Your task to perform on an android device: check android version Image 0: 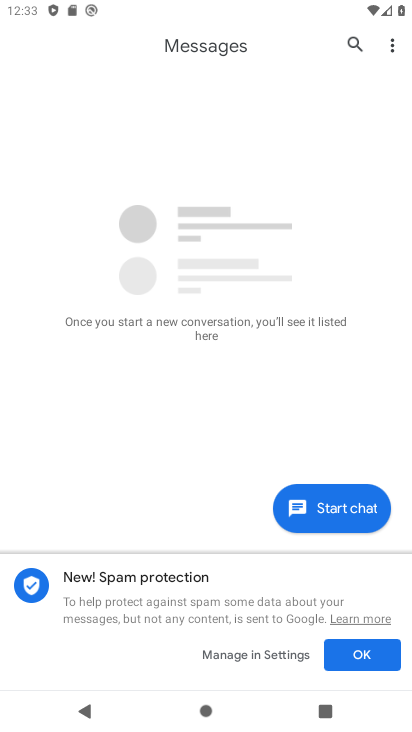
Step 0: press back button
Your task to perform on an android device: check android version Image 1: 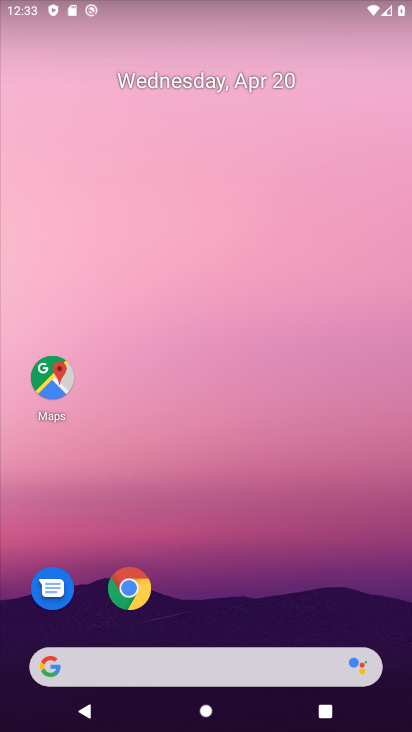
Step 1: drag from (208, 610) to (281, 299)
Your task to perform on an android device: check android version Image 2: 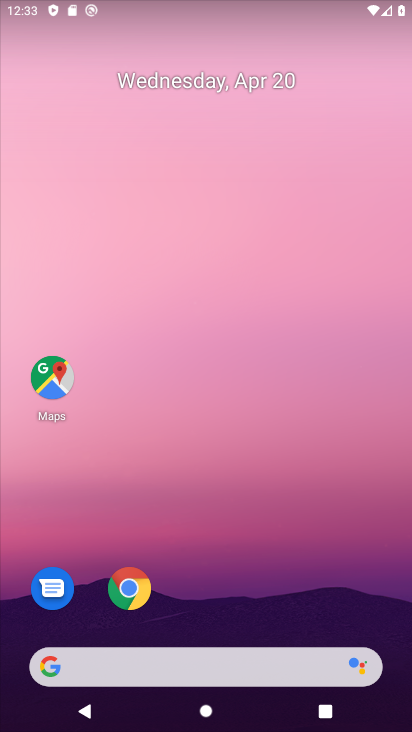
Step 2: drag from (291, 640) to (343, 139)
Your task to perform on an android device: check android version Image 3: 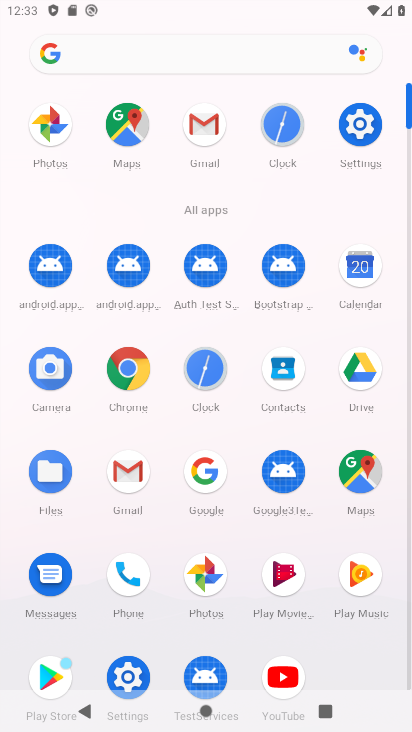
Step 3: click (363, 136)
Your task to perform on an android device: check android version Image 4: 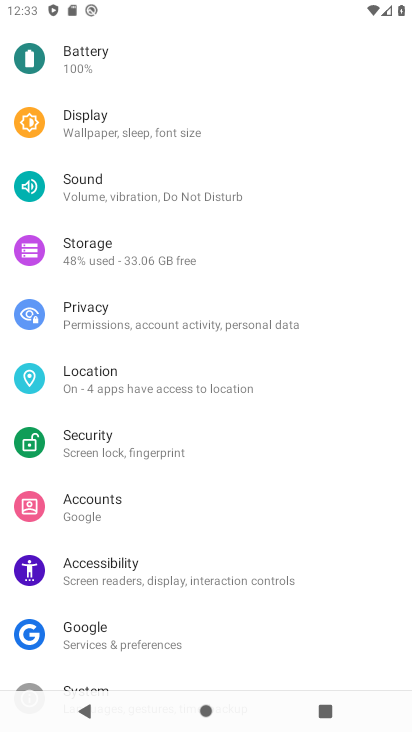
Step 4: drag from (155, 667) to (199, 357)
Your task to perform on an android device: check android version Image 5: 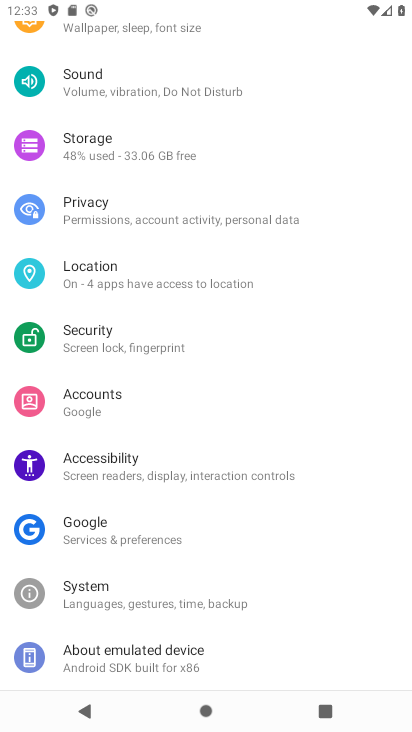
Step 5: click (148, 668)
Your task to perform on an android device: check android version Image 6: 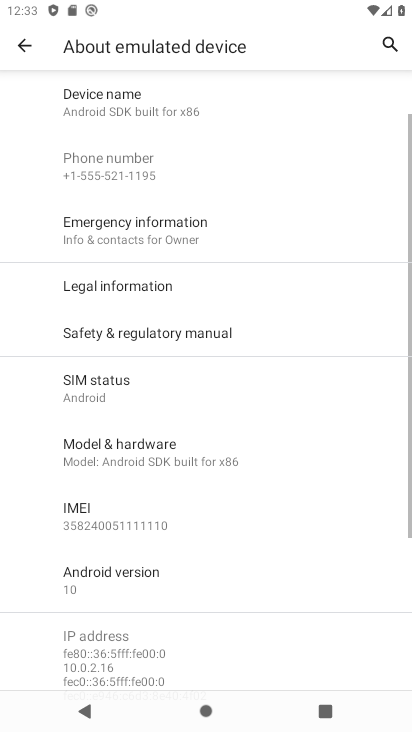
Step 6: click (110, 574)
Your task to perform on an android device: check android version Image 7: 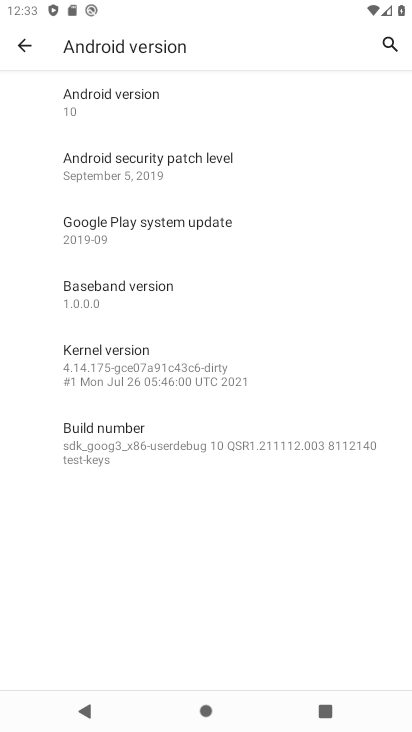
Step 7: task complete